Your task to perform on an android device: turn vacation reply on in the gmail app Image 0: 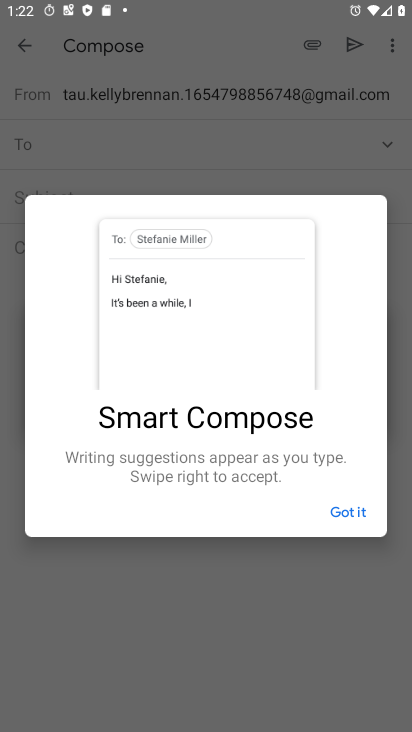
Step 0: press home button
Your task to perform on an android device: turn vacation reply on in the gmail app Image 1: 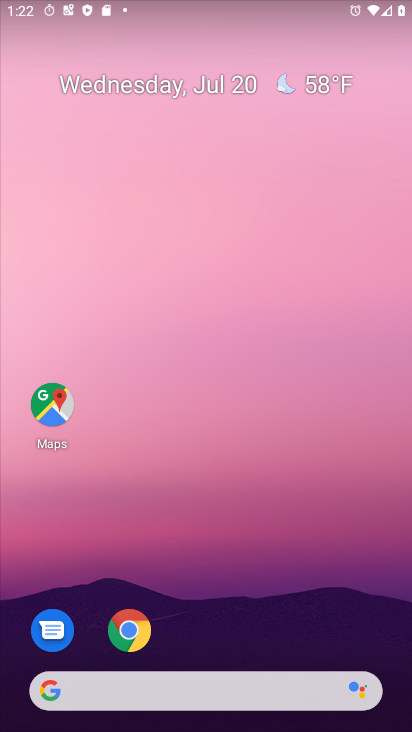
Step 1: drag from (187, 699) to (266, 170)
Your task to perform on an android device: turn vacation reply on in the gmail app Image 2: 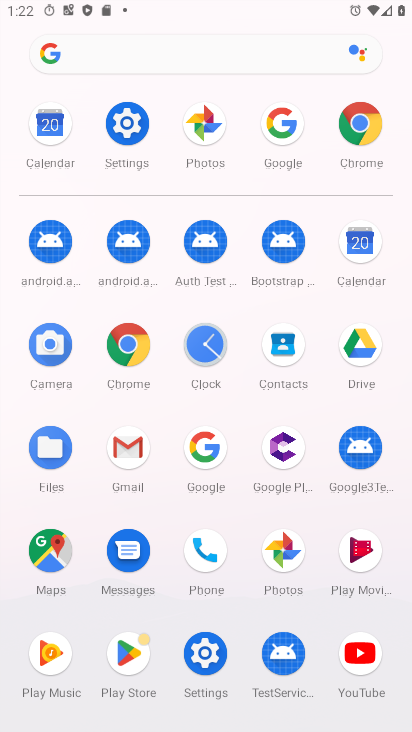
Step 2: click (126, 453)
Your task to perform on an android device: turn vacation reply on in the gmail app Image 3: 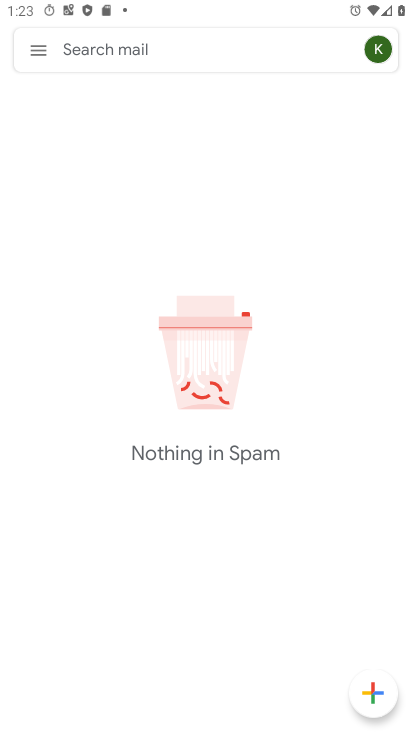
Step 3: click (36, 50)
Your task to perform on an android device: turn vacation reply on in the gmail app Image 4: 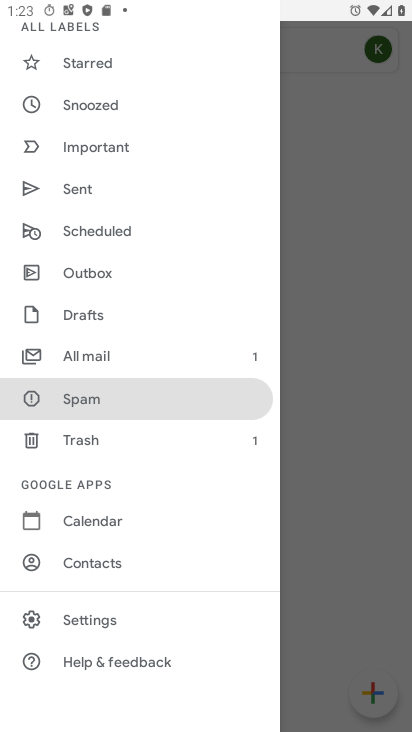
Step 4: click (112, 620)
Your task to perform on an android device: turn vacation reply on in the gmail app Image 5: 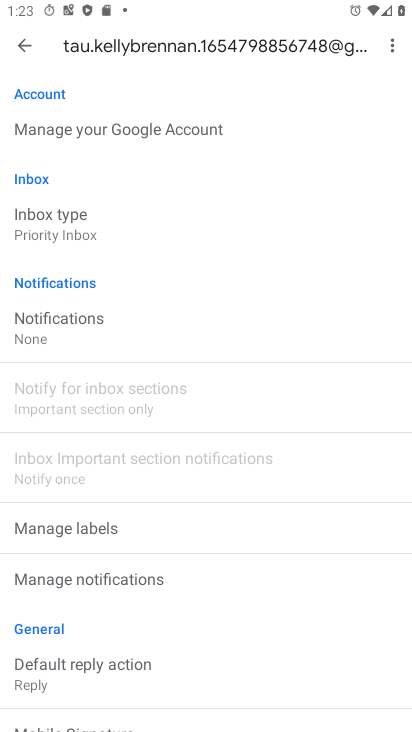
Step 5: drag from (249, 608) to (301, 35)
Your task to perform on an android device: turn vacation reply on in the gmail app Image 6: 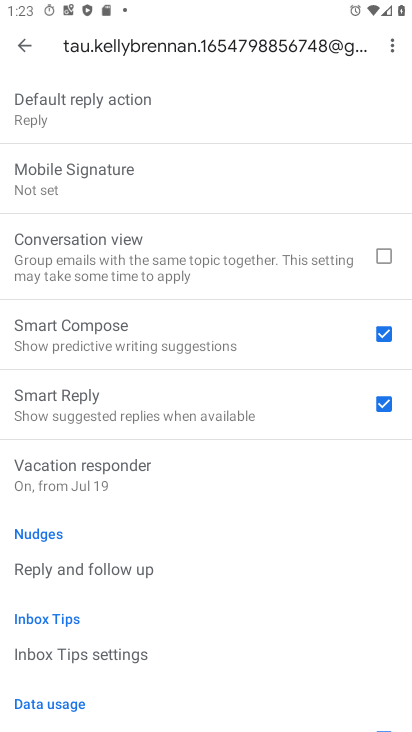
Step 6: click (124, 482)
Your task to perform on an android device: turn vacation reply on in the gmail app Image 7: 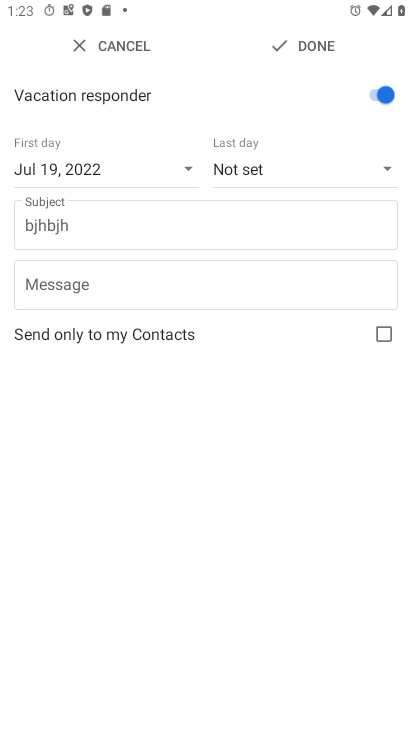
Step 7: task complete